Your task to perform on an android device: Check the weather Image 0: 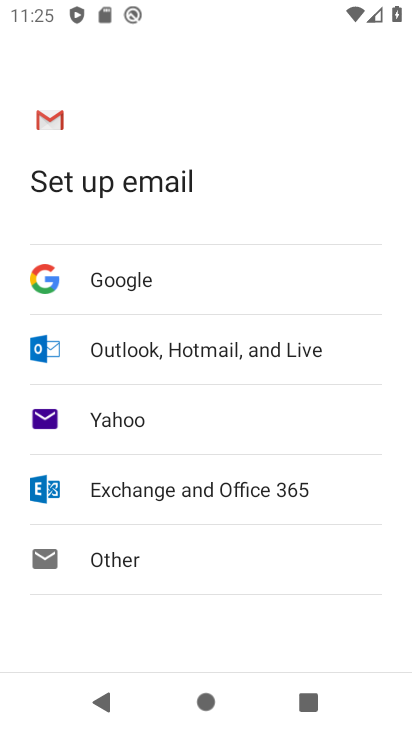
Step 0: press back button
Your task to perform on an android device: Check the weather Image 1: 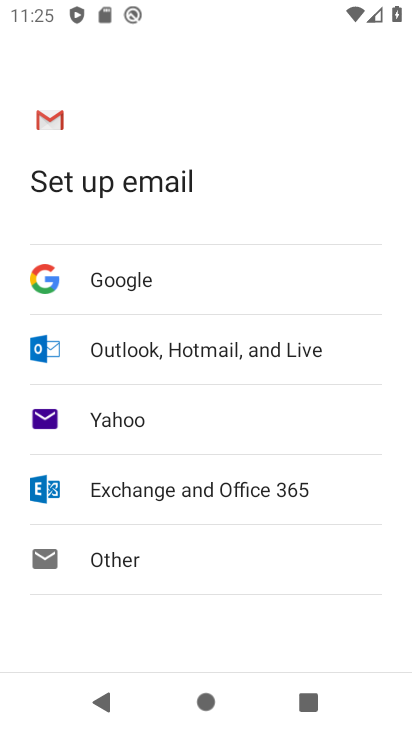
Step 1: task complete